Your task to perform on an android device: Open Android settings Image 0: 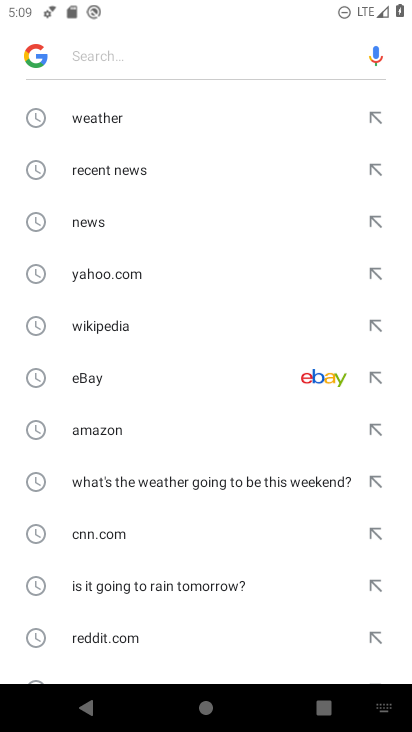
Step 0: press home button
Your task to perform on an android device: Open Android settings Image 1: 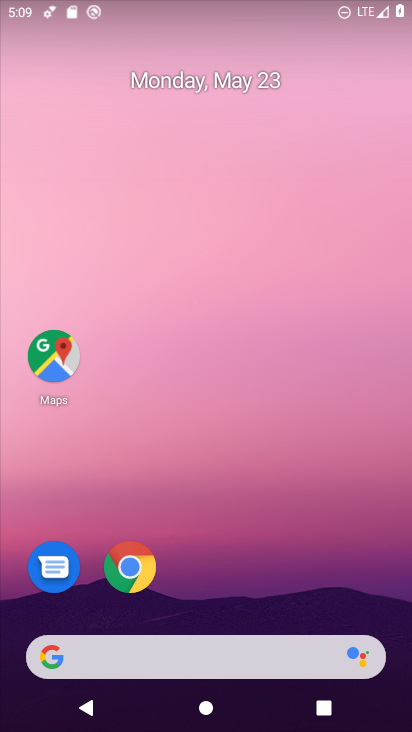
Step 1: drag from (256, 598) to (169, 153)
Your task to perform on an android device: Open Android settings Image 2: 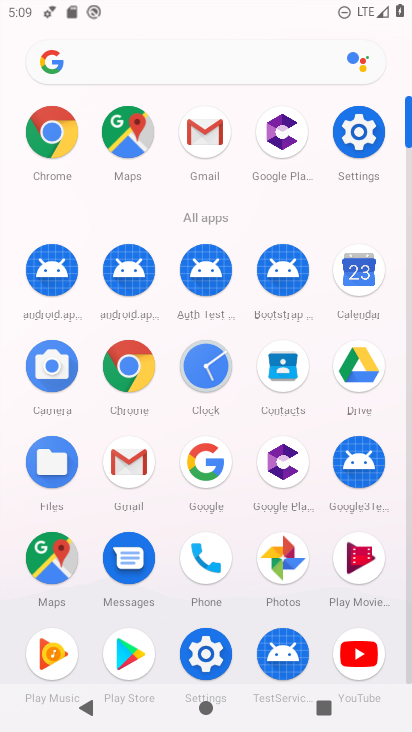
Step 2: click (360, 131)
Your task to perform on an android device: Open Android settings Image 3: 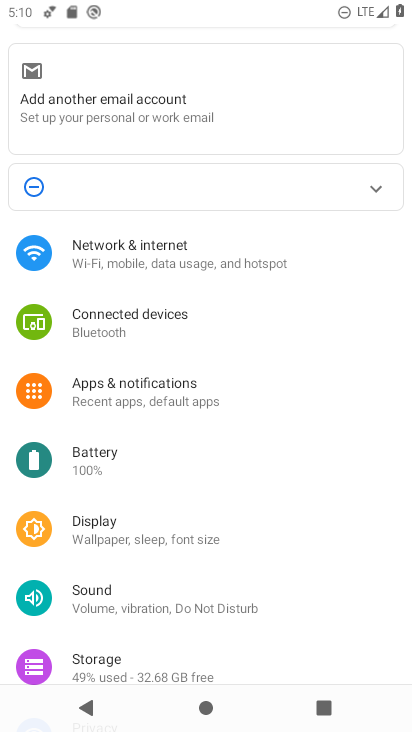
Step 3: task complete